Your task to perform on an android device: Add logitech g pro to the cart on amazon.com, then select checkout. Image 0: 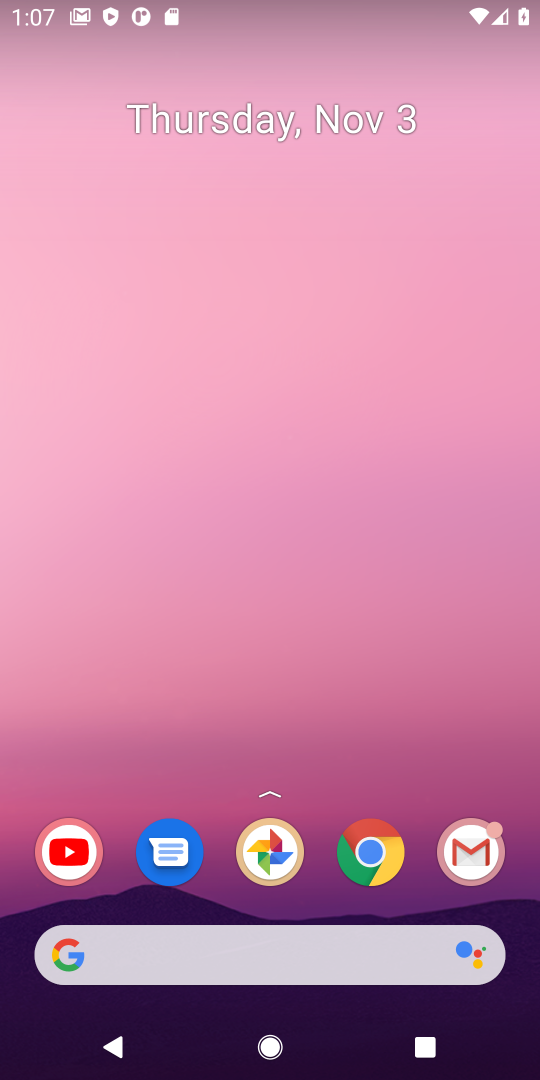
Step 0: click (378, 851)
Your task to perform on an android device: Add logitech g pro to the cart on amazon.com, then select checkout. Image 1: 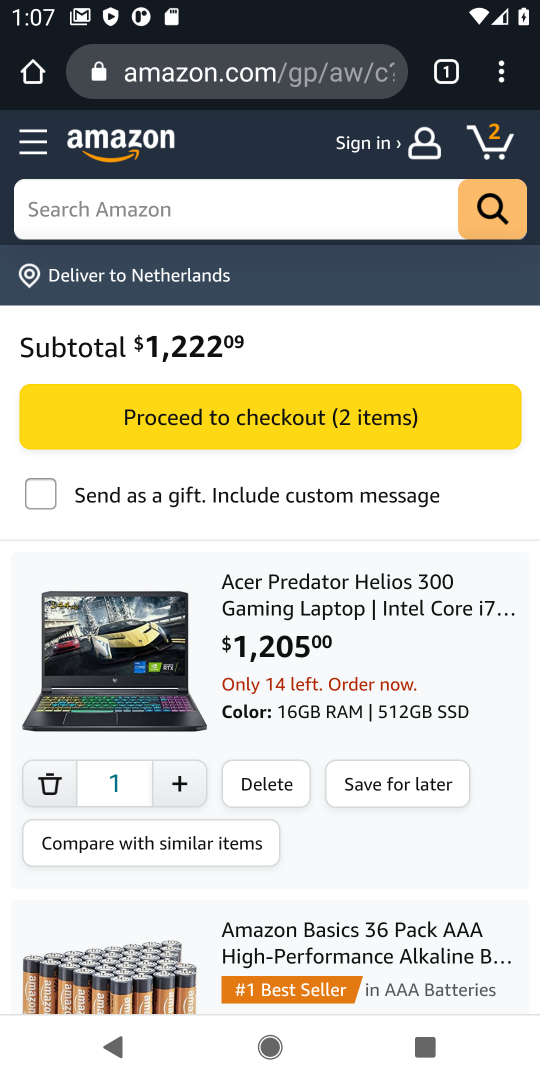
Step 1: click (204, 207)
Your task to perform on an android device: Add logitech g pro to the cart on amazon.com, then select checkout. Image 2: 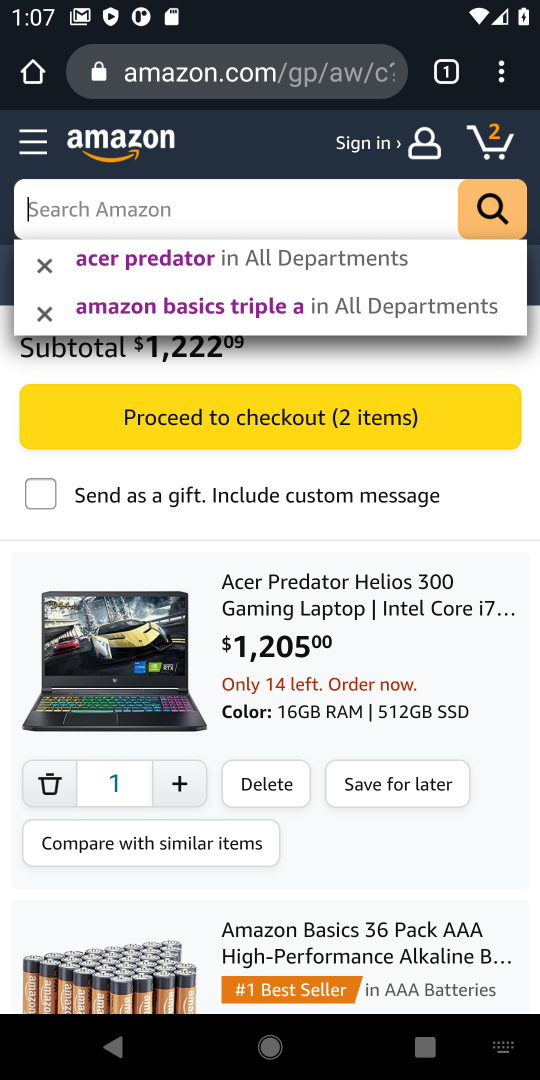
Step 2: type "logitech g pro"
Your task to perform on an android device: Add logitech g pro to the cart on amazon.com, then select checkout. Image 3: 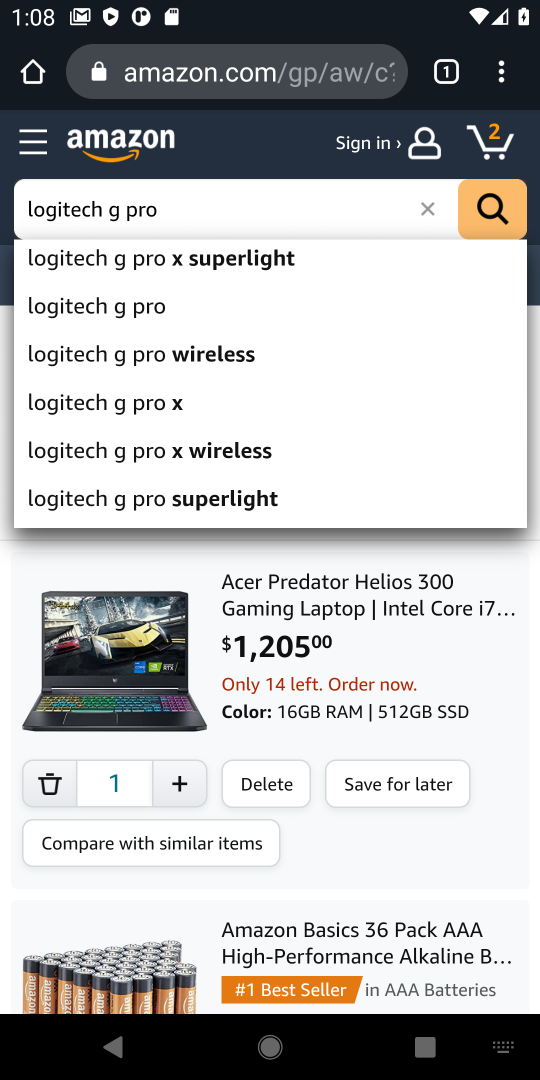
Step 3: click (116, 308)
Your task to perform on an android device: Add logitech g pro to the cart on amazon.com, then select checkout. Image 4: 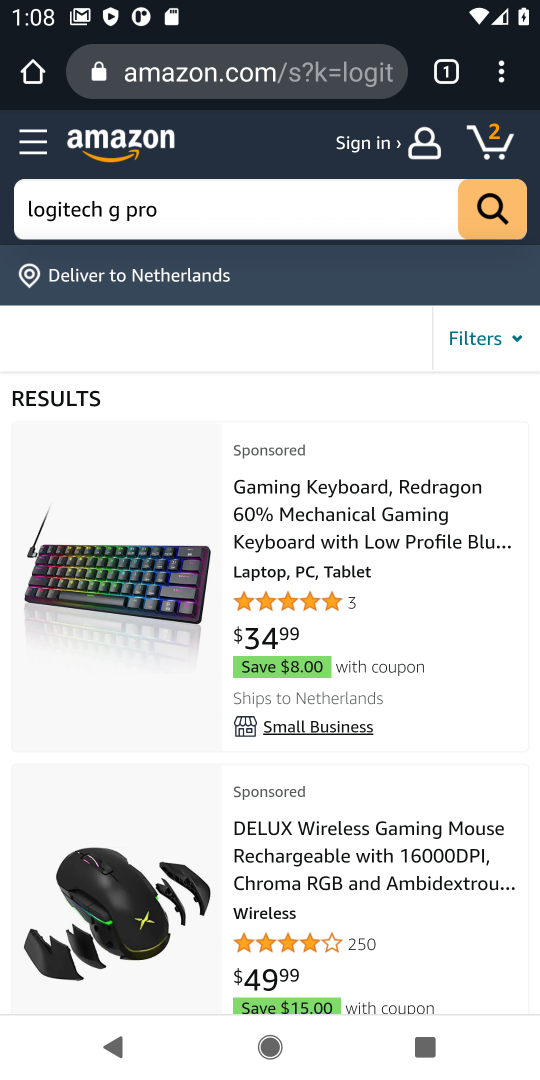
Step 4: drag from (336, 739) to (366, 323)
Your task to perform on an android device: Add logitech g pro to the cart on amazon.com, then select checkout. Image 5: 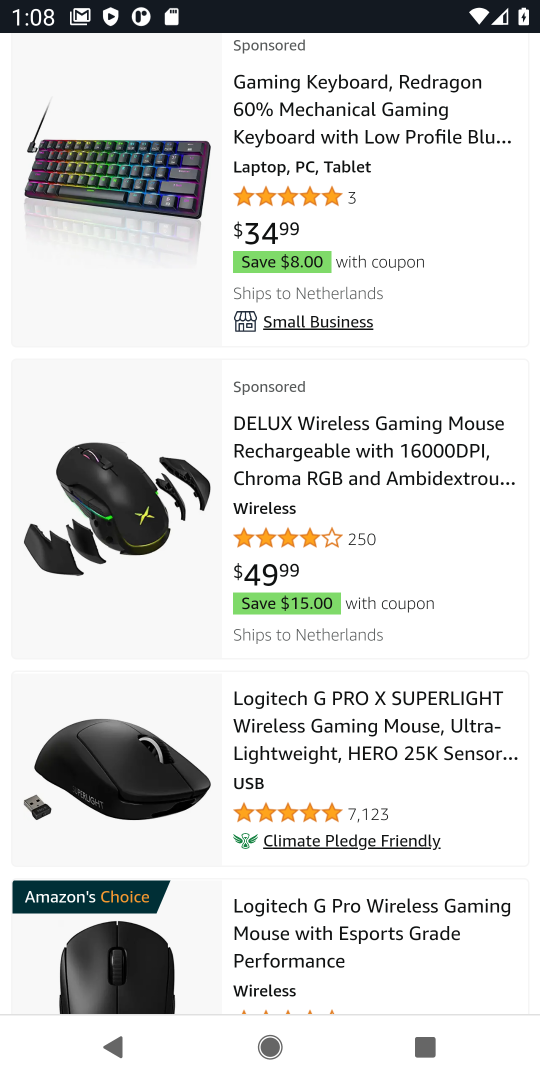
Step 5: click (252, 745)
Your task to perform on an android device: Add logitech g pro to the cart on amazon.com, then select checkout. Image 6: 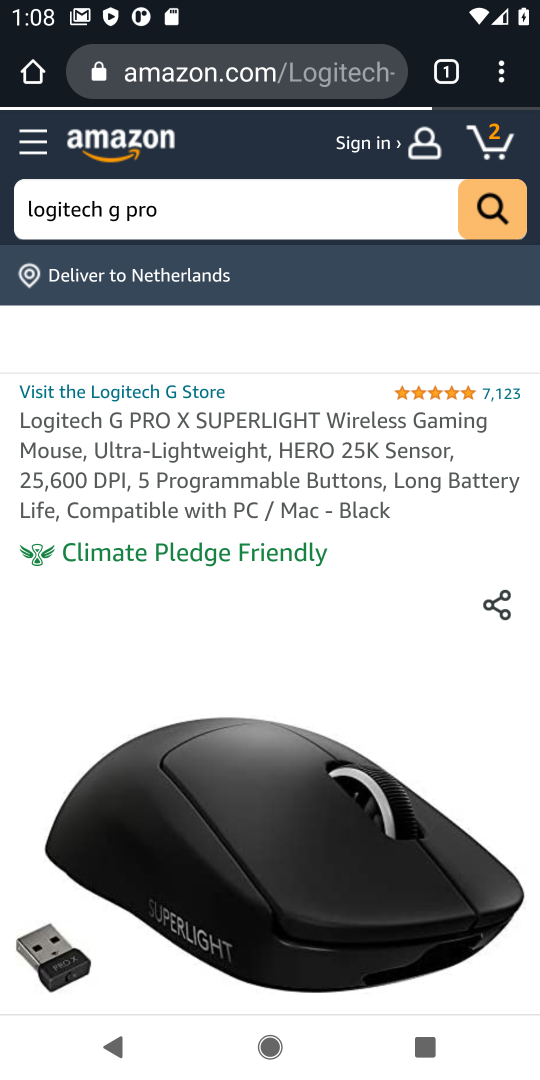
Step 6: drag from (252, 737) to (273, 282)
Your task to perform on an android device: Add logitech g pro to the cart on amazon.com, then select checkout. Image 7: 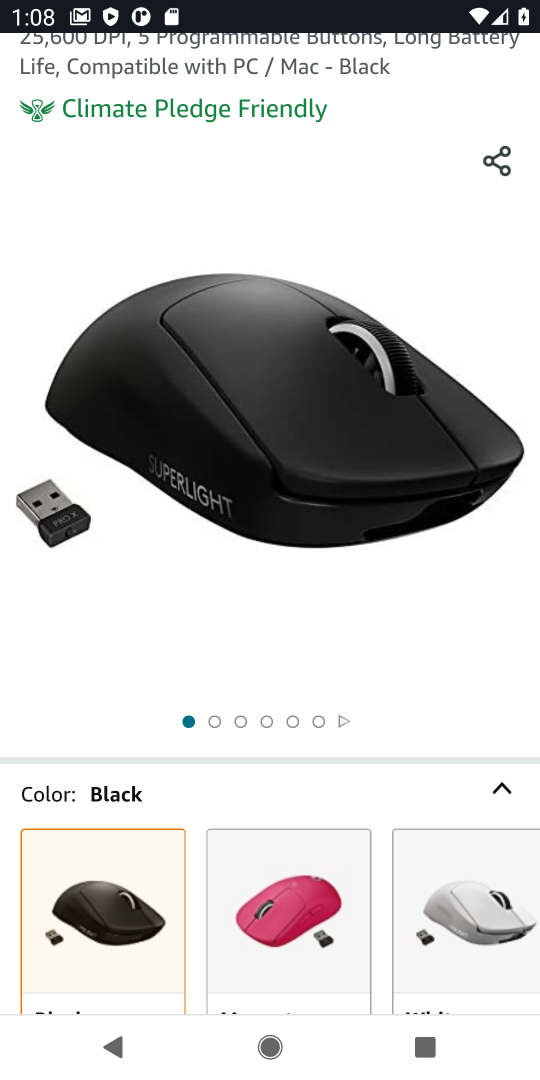
Step 7: drag from (236, 746) to (292, 353)
Your task to perform on an android device: Add logitech g pro to the cart on amazon.com, then select checkout. Image 8: 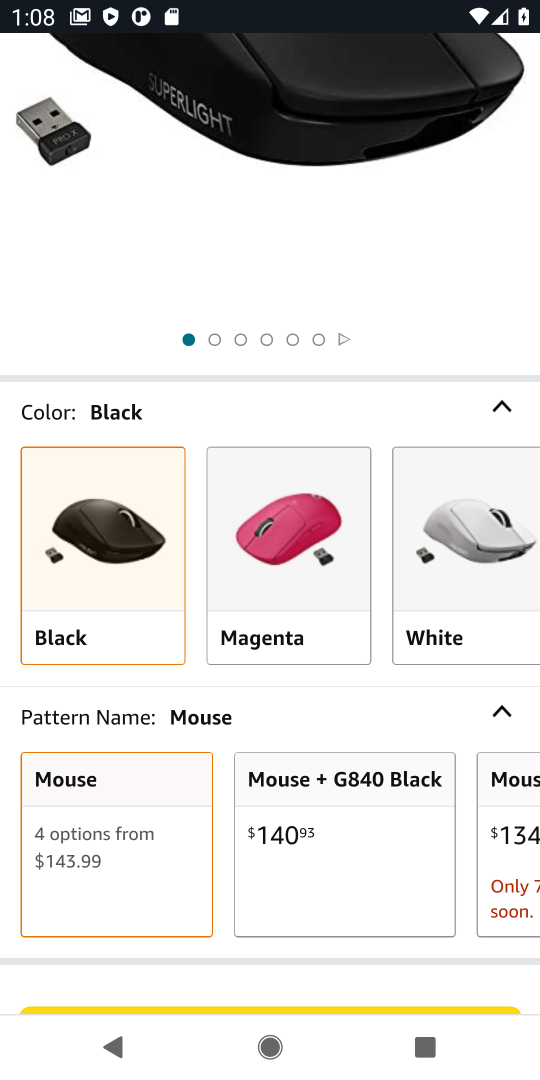
Step 8: drag from (254, 702) to (278, 346)
Your task to perform on an android device: Add logitech g pro to the cart on amazon.com, then select checkout. Image 9: 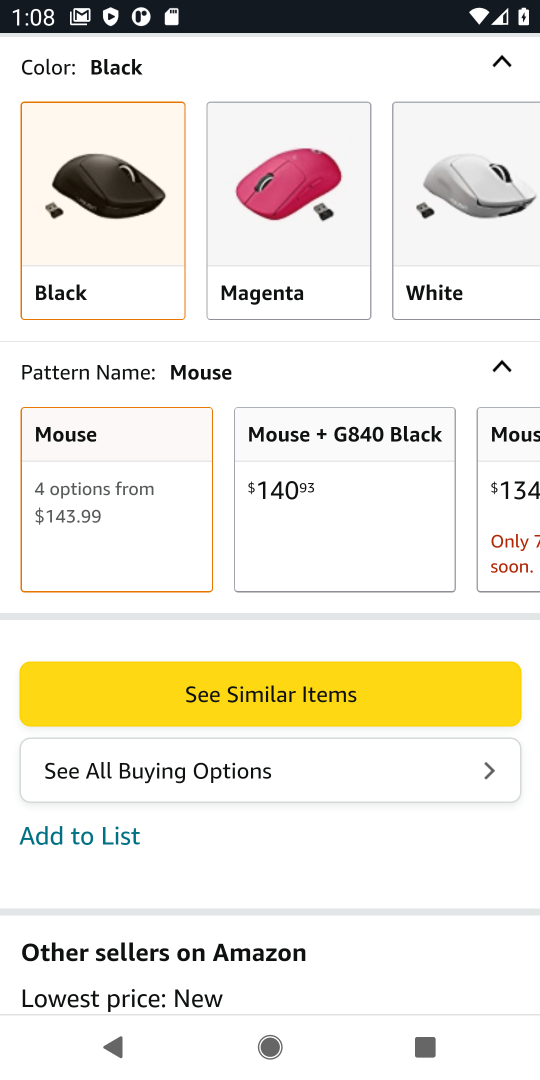
Step 9: press back button
Your task to perform on an android device: Add logitech g pro to the cart on amazon.com, then select checkout. Image 10: 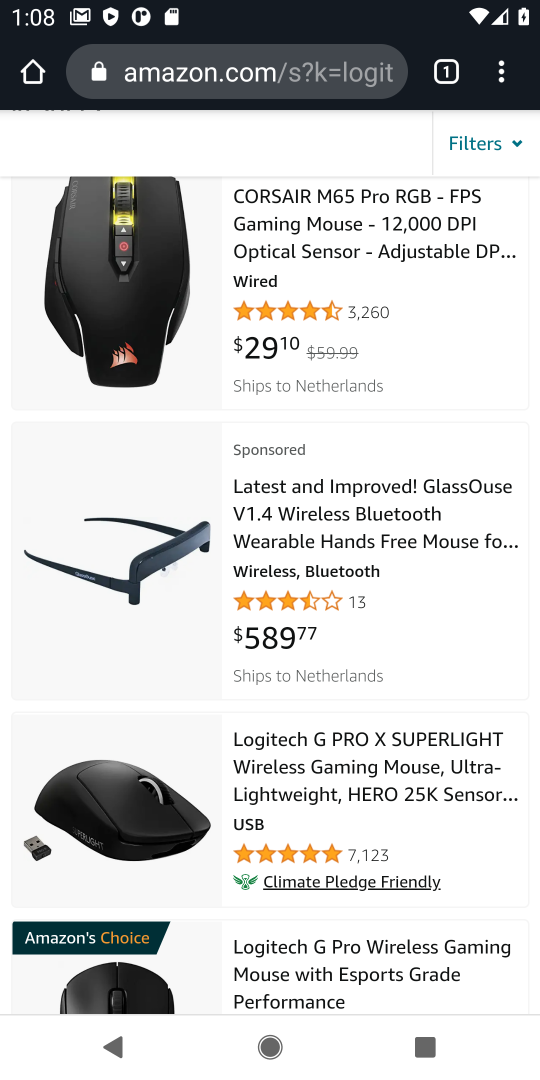
Step 10: drag from (280, 769) to (321, 512)
Your task to perform on an android device: Add logitech g pro to the cart on amazon.com, then select checkout. Image 11: 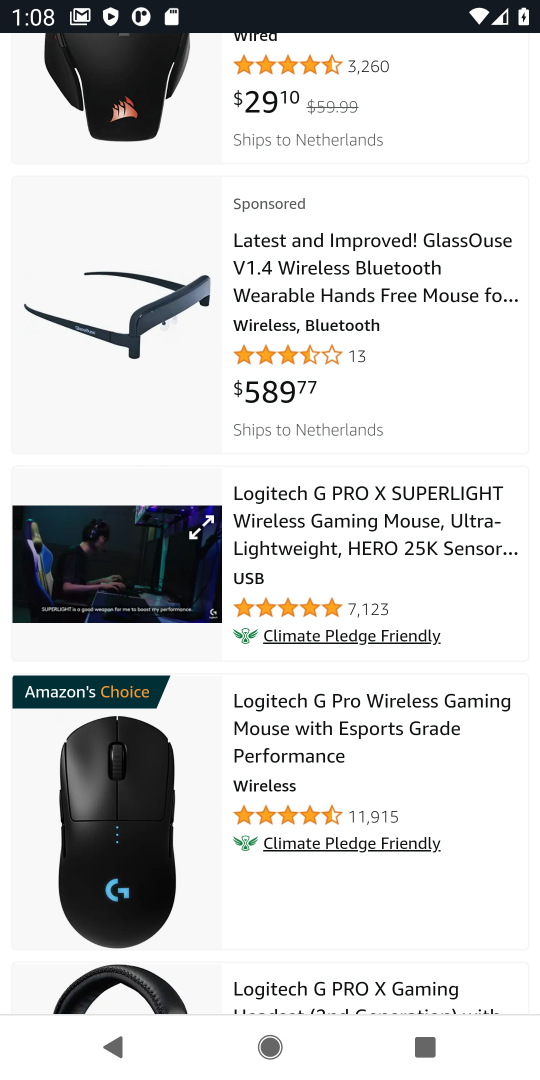
Step 11: click (177, 823)
Your task to perform on an android device: Add logitech g pro to the cart on amazon.com, then select checkout. Image 12: 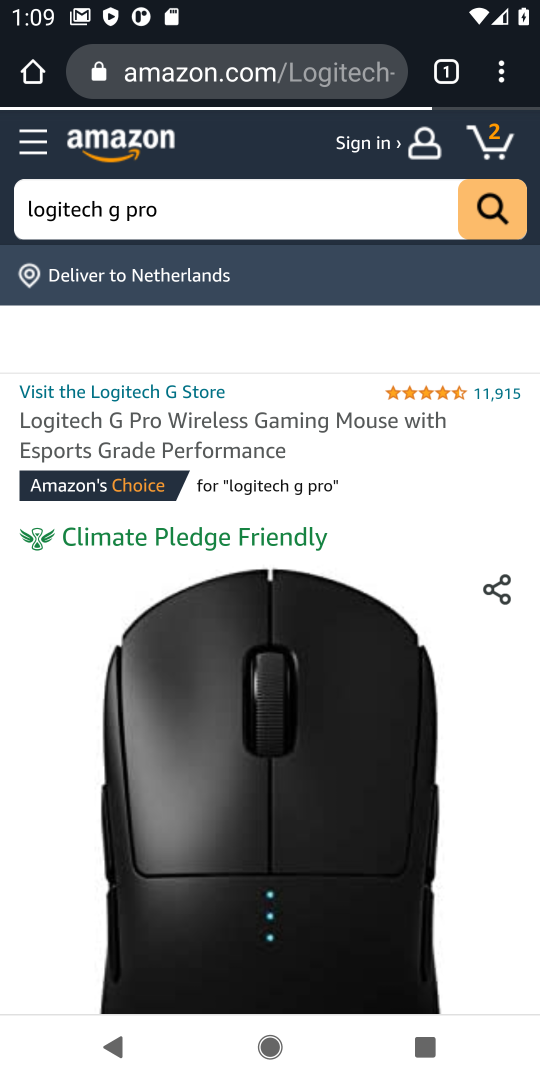
Step 12: drag from (240, 672) to (281, 93)
Your task to perform on an android device: Add logitech g pro to the cart on amazon.com, then select checkout. Image 13: 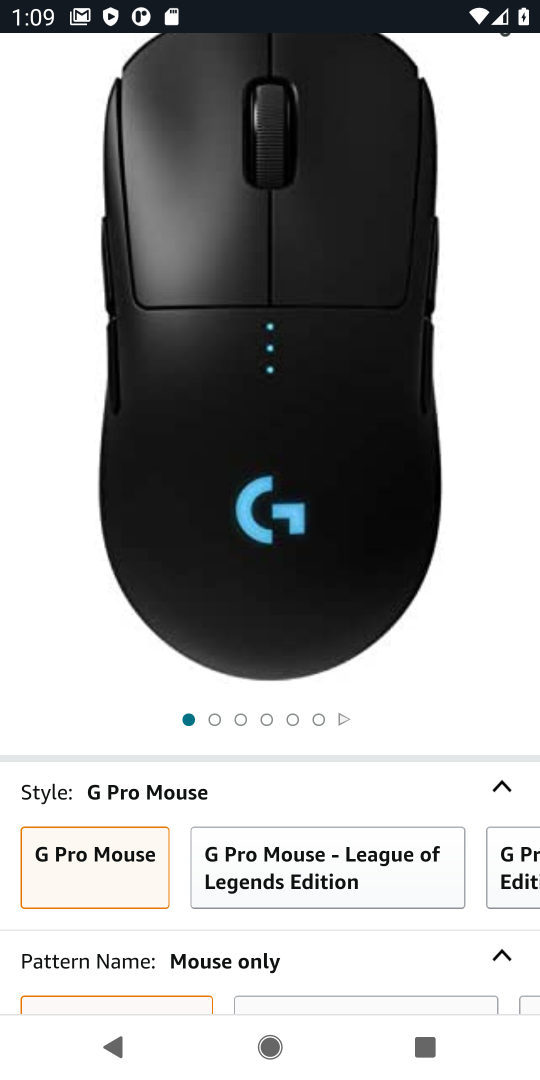
Step 13: drag from (261, 639) to (294, 81)
Your task to perform on an android device: Add logitech g pro to the cart on amazon.com, then select checkout. Image 14: 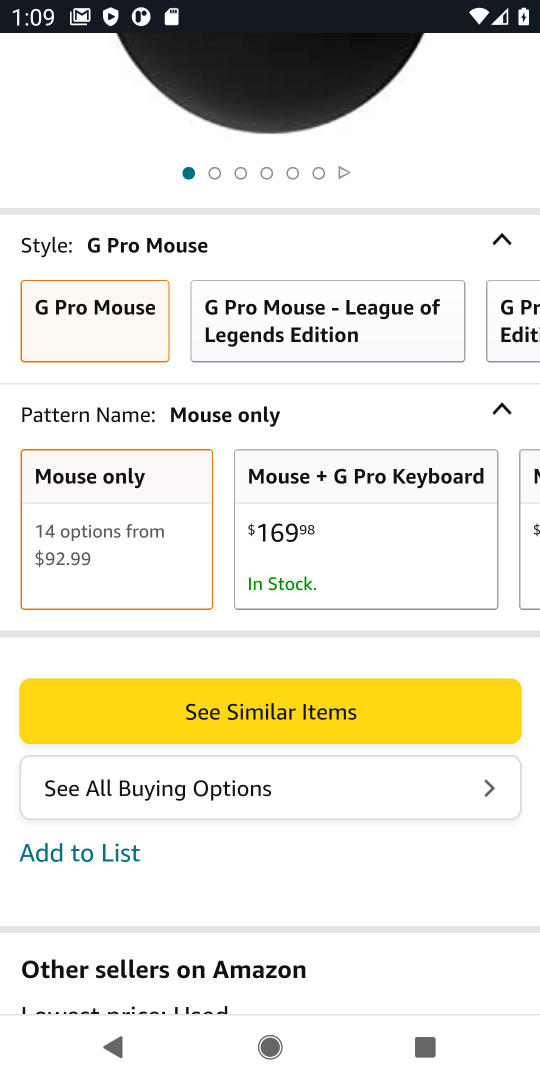
Step 14: press back button
Your task to perform on an android device: Add logitech g pro to the cart on amazon.com, then select checkout. Image 15: 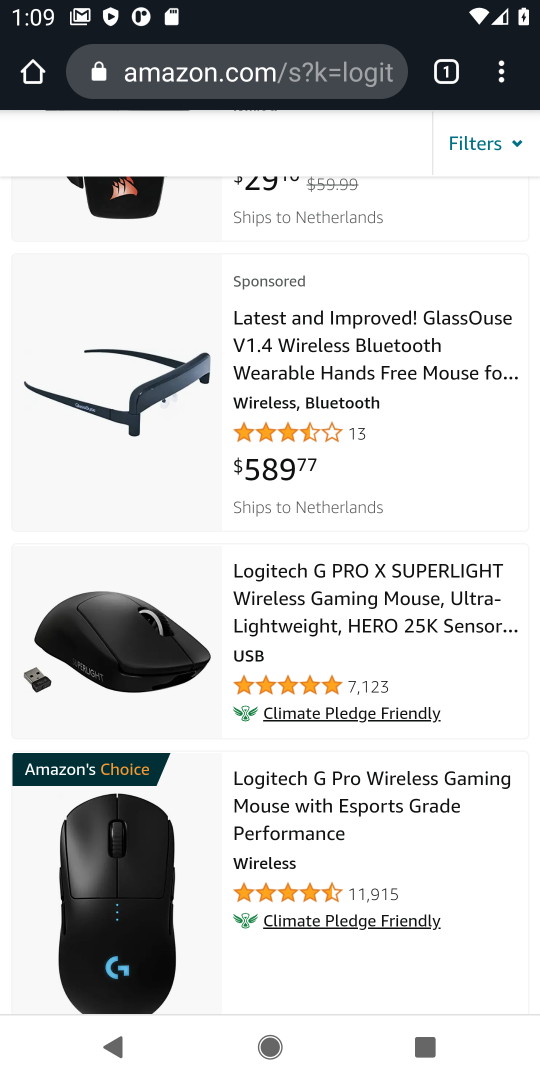
Step 15: click (268, 606)
Your task to perform on an android device: Add logitech g pro to the cart on amazon.com, then select checkout. Image 16: 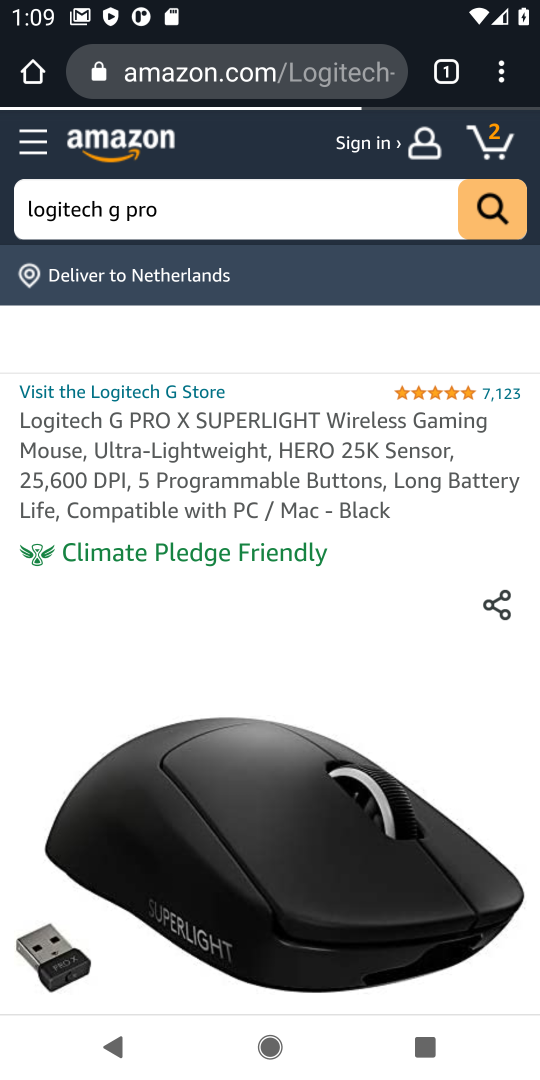
Step 16: drag from (234, 616) to (279, 114)
Your task to perform on an android device: Add logitech g pro to the cart on amazon.com, then select checkout. Image 17: 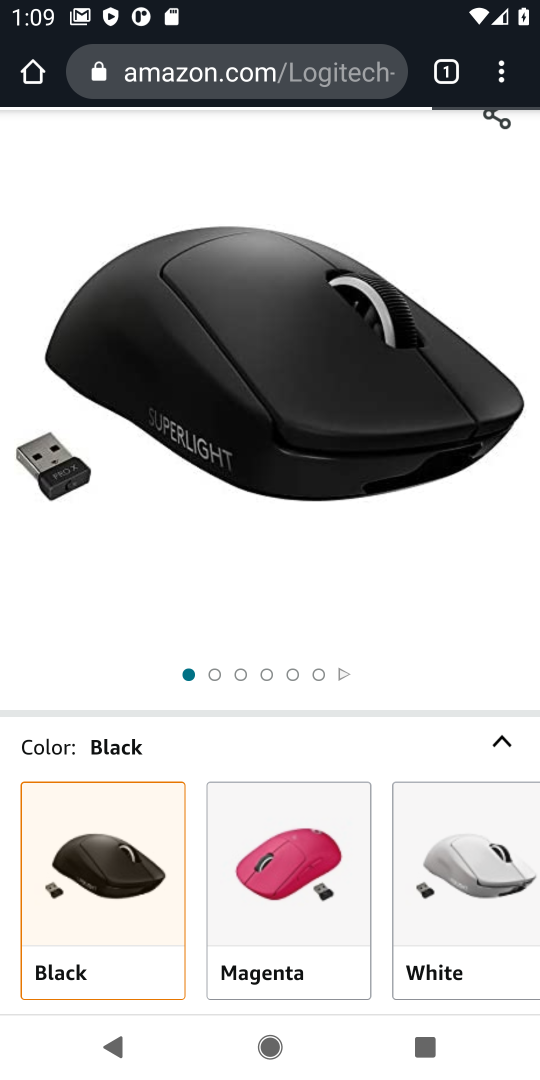
Step 17: drag from (283, 726) to (296, 125)
Your task to perform on an android device: Add logitech g pro to the cart on amazon.com, then select checkout. Image 18: 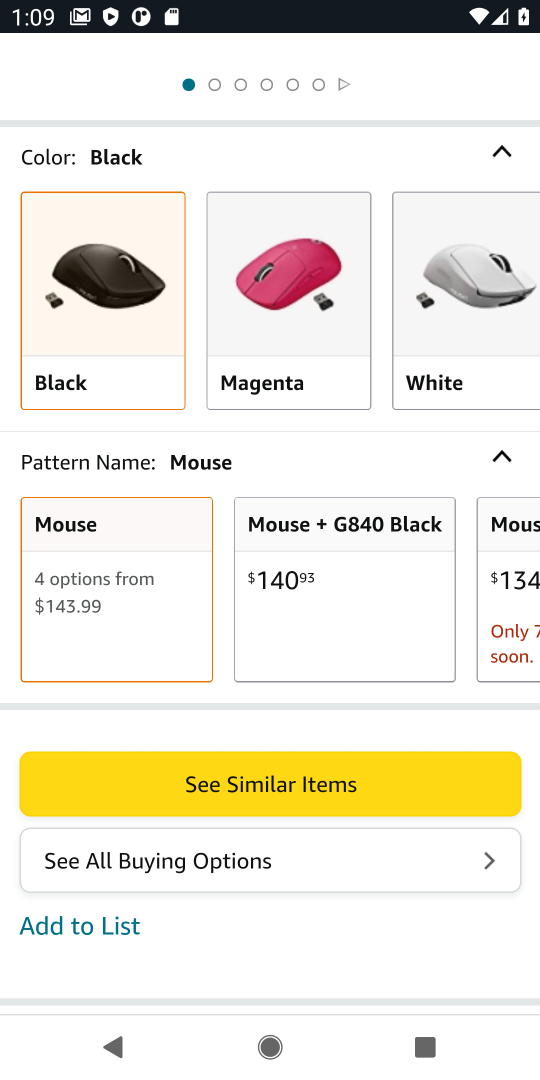
Step 18: press back button
Your task to perform on an android device: Add logitech g pro to the cart on amazon.com, then select checkout. Image 19: 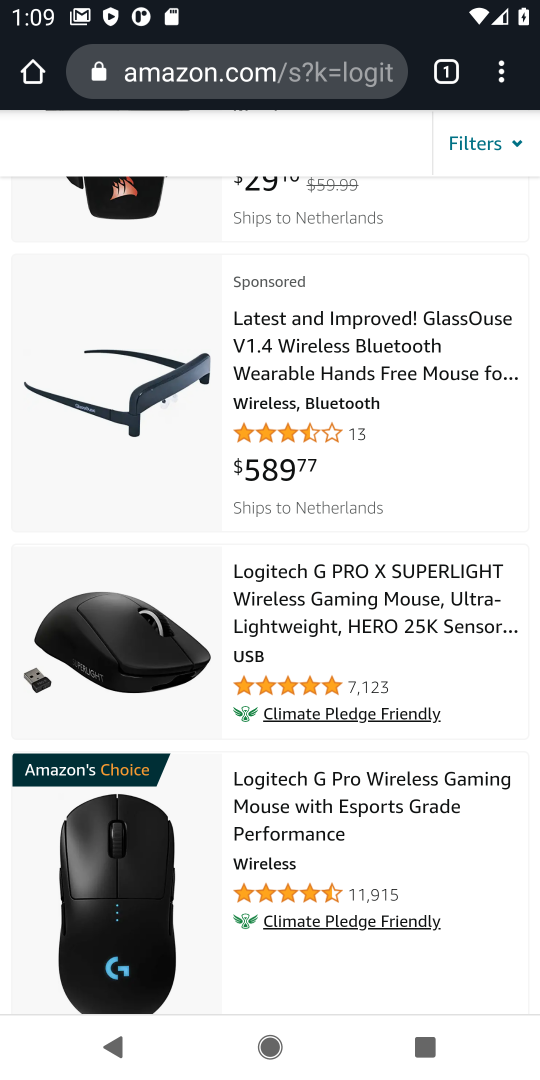
Step 19: drag from (253, 753) to (243, 206)
Your task to perform on an android device: Add logitech g pro to the cart on amazon.com, then select checkout. Image 20: 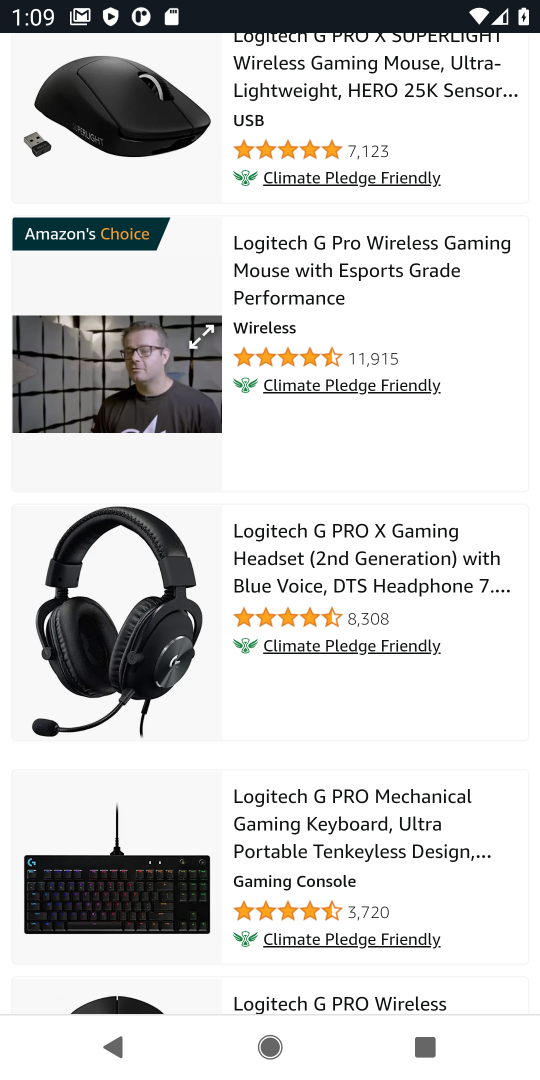
Step 20: click (250, 588)
Your task to perform on an android device: Add logitech g pro to the cart on amazon.com, then select checkout. Image 21: 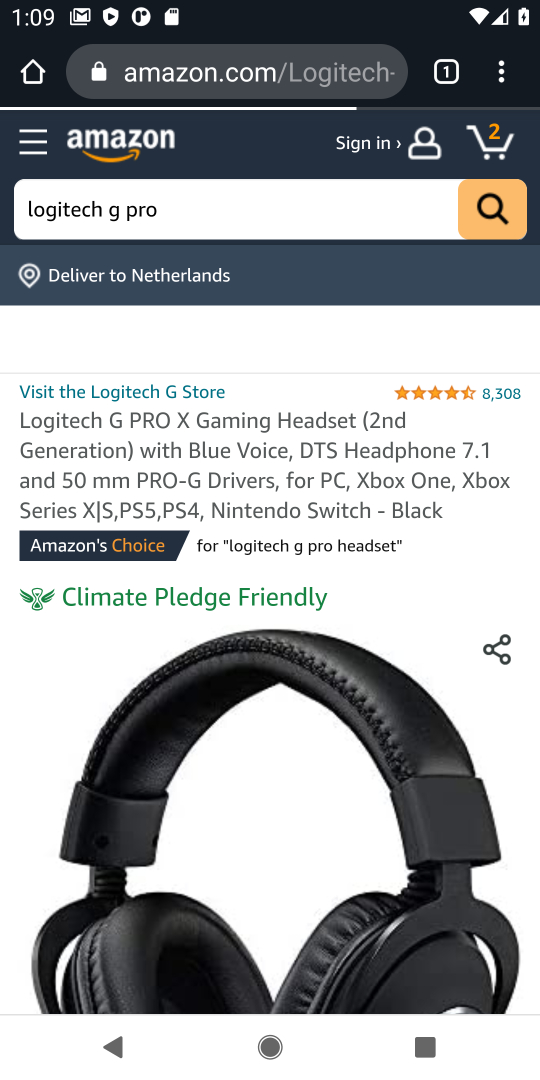
Step 21: task complete